Your task to perform on an android device: delete browsing data in the chrome app Image 0: 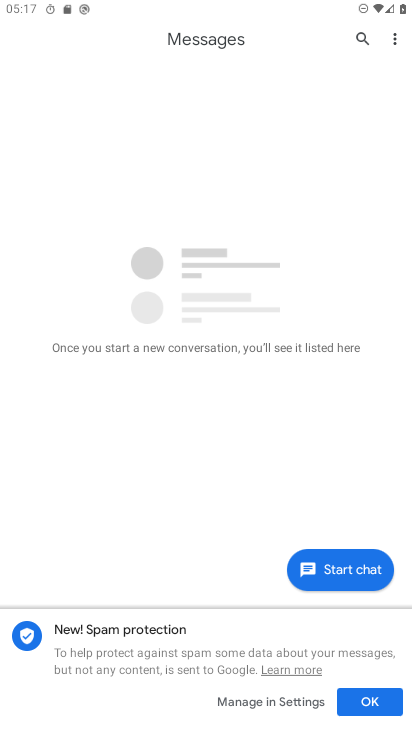
Step 0: press home button
Your task to perform on an android device: delete browsing data in the chrome app Image 1: 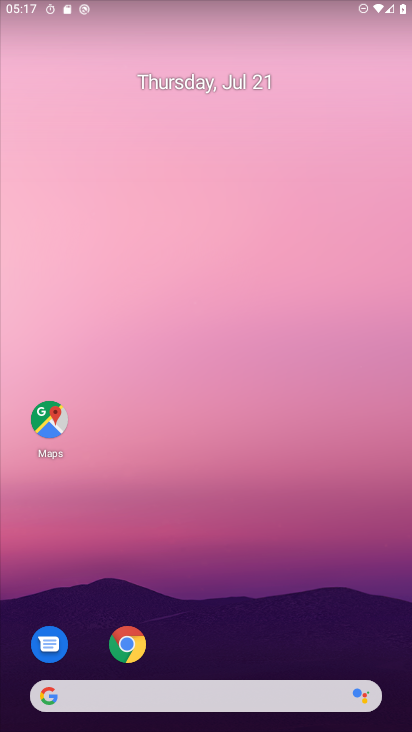
Step 1: click (119, 650)
Your task to perform on an android device: delete browsing data in the chrome app Image 2: 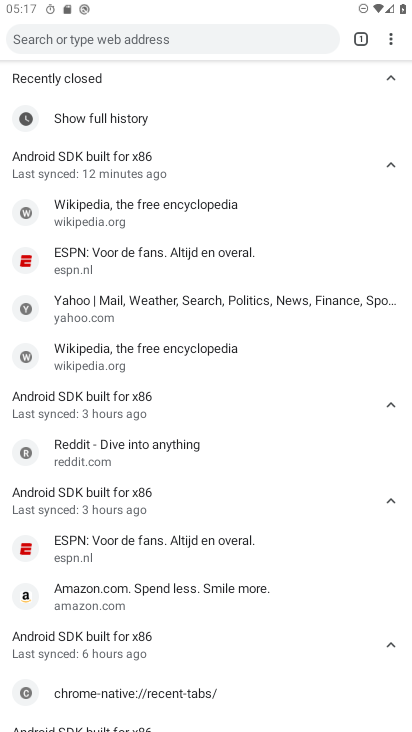
Step 2: click (392, 37)
Your task to perform on an android device: delete browsing data in the chrome app Image 3: 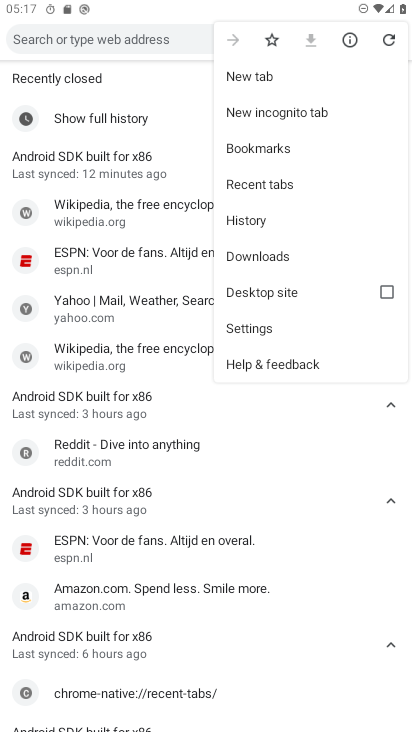
Step 3: click (251, 222)
Your task to perform on an android device: delete browsing data in the chrome app Image 4: 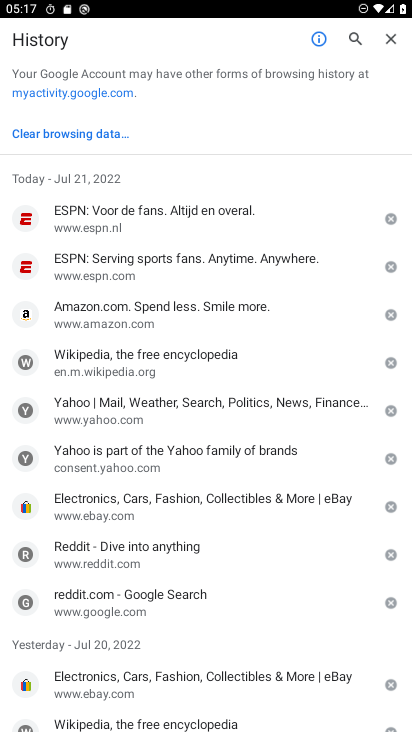
Step 4: click (93, 132)
Your task to perform on an android device: delete browsing data in the chrome app Image 5: 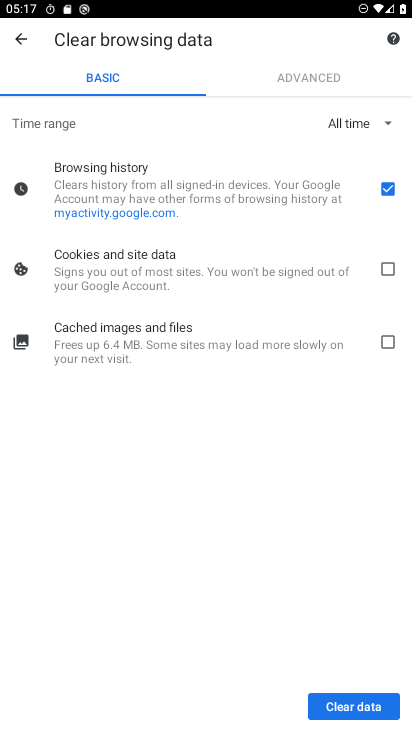
Step 5: click (387, 265)
Your task to perform on an android device: delete browsing data in the chrome app Image 6: 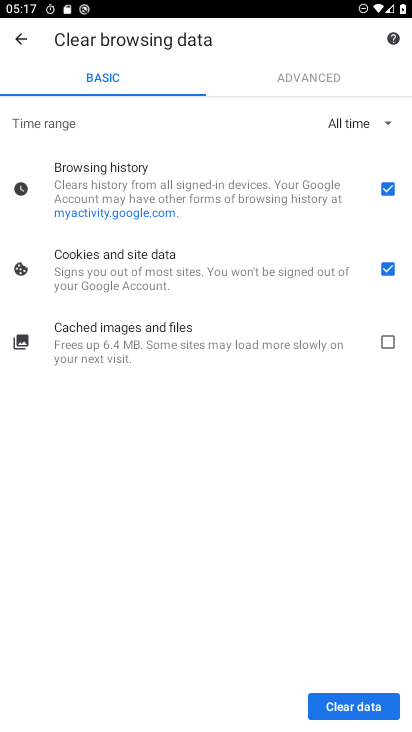
Step 6: click (388, 335)
Your task to perform on an android device: delete browsing data in the chrome app Image 7: 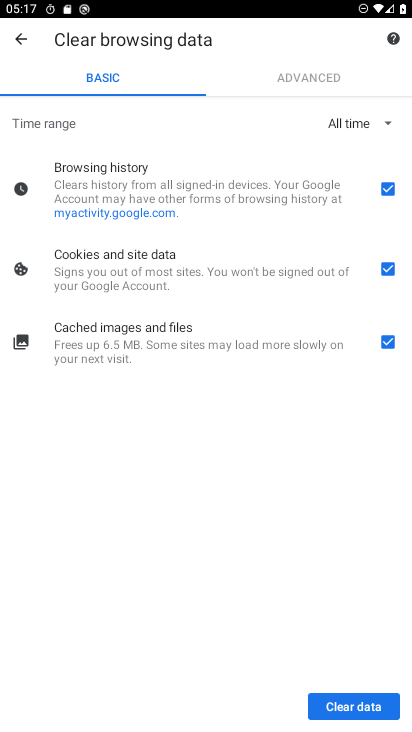
Step 7: click (338, 708)
Your task to perform on an android device: delete browsing data in the chrome app Image 8: 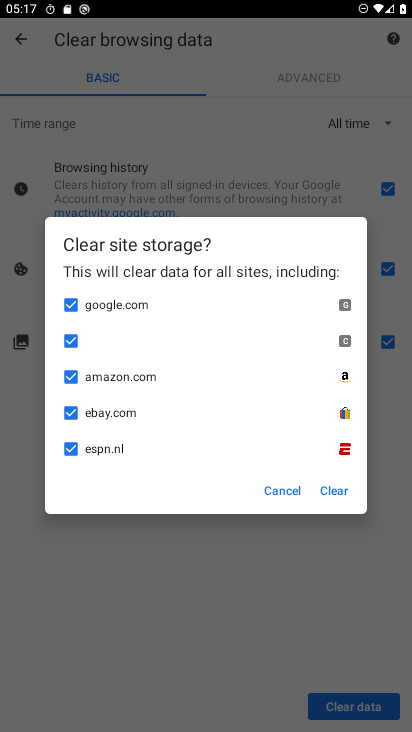
Step 8: click (340, 488)
Your task to perform on an android device: delete browsing data in the chrome app Image 9: 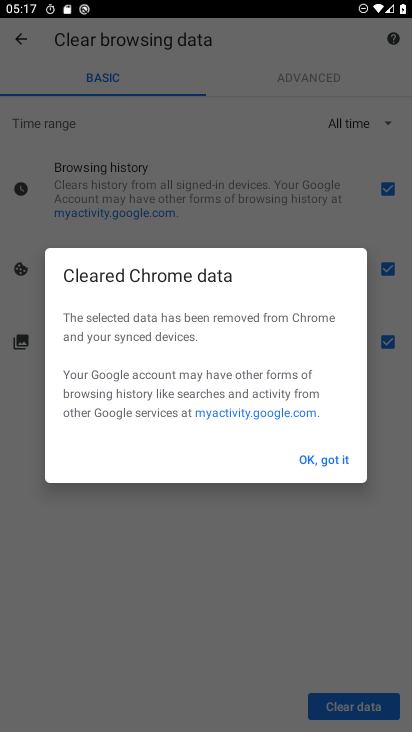
Step 9: task complete